Your task to perform on an android device: Open Reddit.com Image 0: 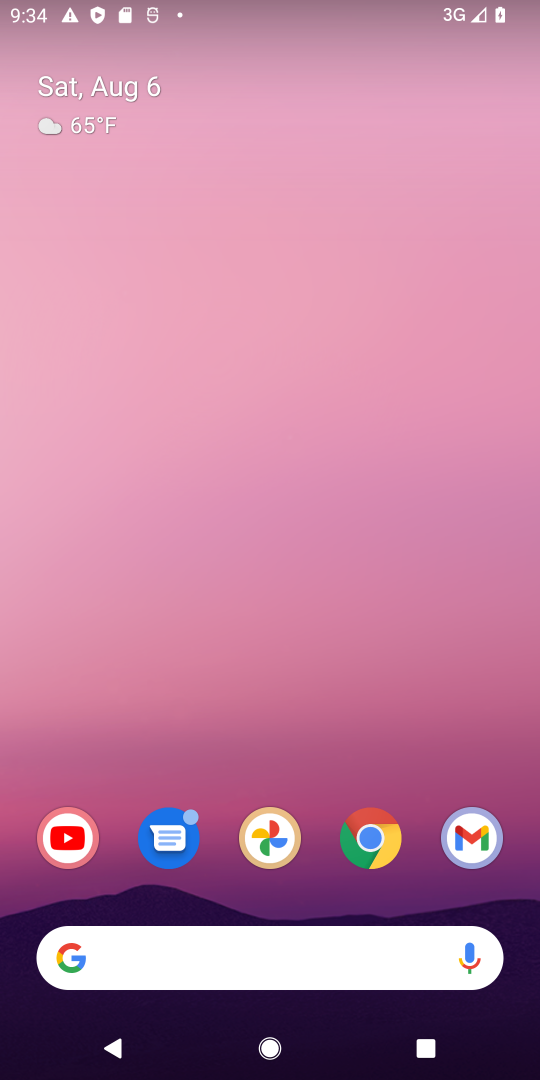
Step 0: drag from (372, 671) to (53, 485)
Your task to perform on an android device: Open Reddit.com Image 1: 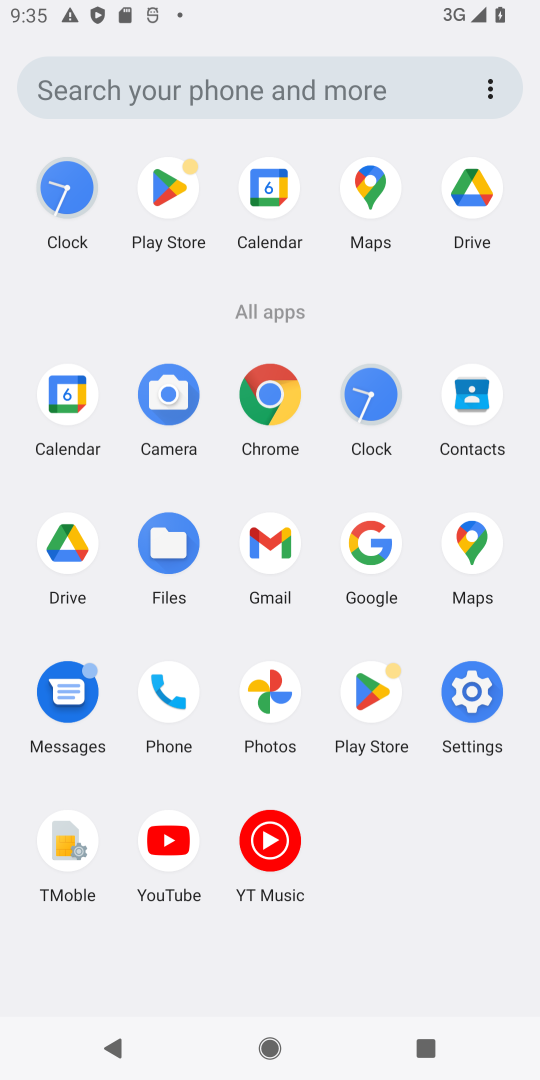
Step 1: click (258, 419)
Your task to perform on an android device: Open Reddit.com Image 2: 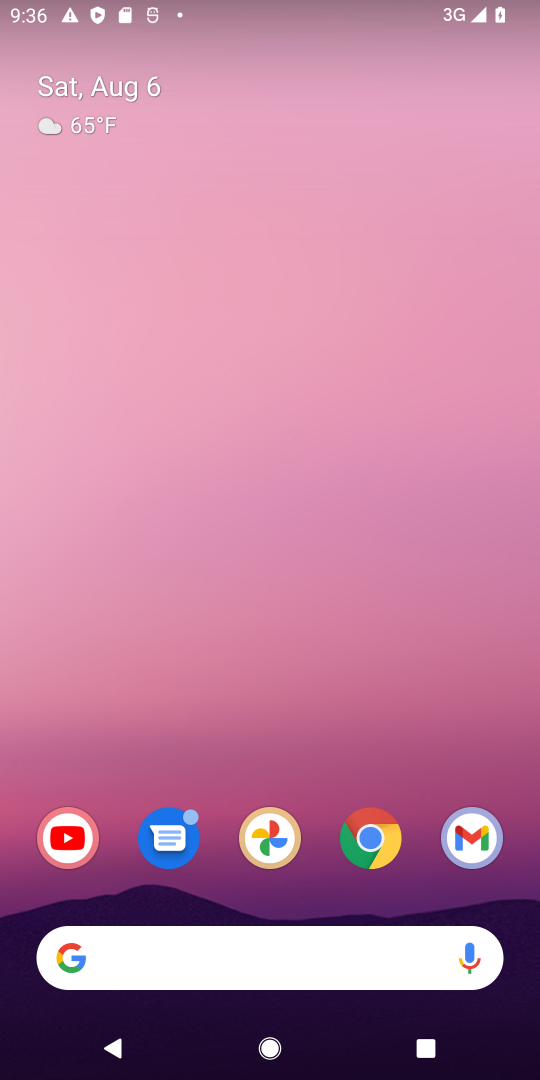
Step 2: drag from (183, 805) to (301, 119)
Your task to perform on an android device: Open Reddit.com Image 3: 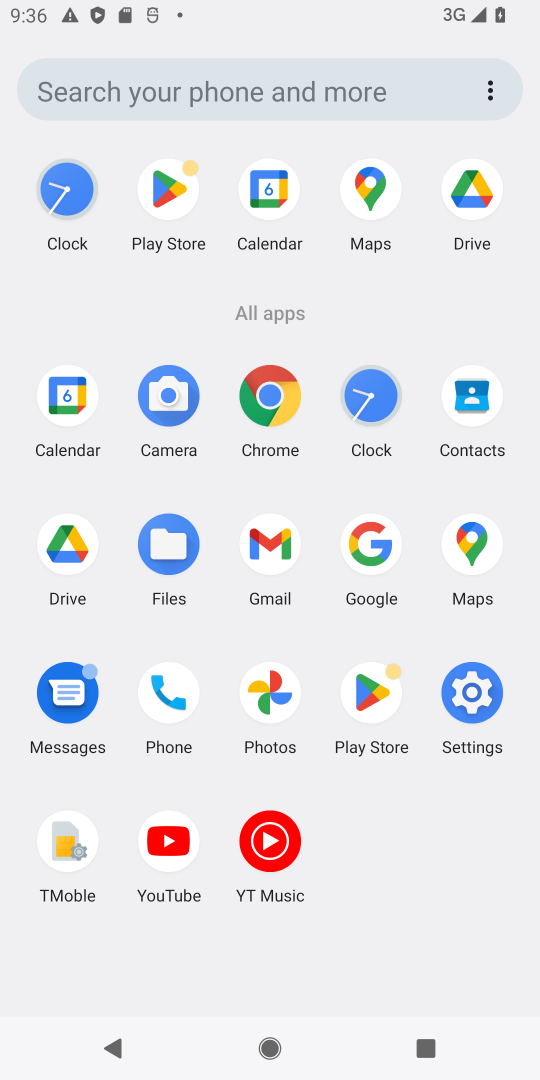
Step 3: click (234, 396)
Your task to perform on an android device: Open Reddit.com Image 4: 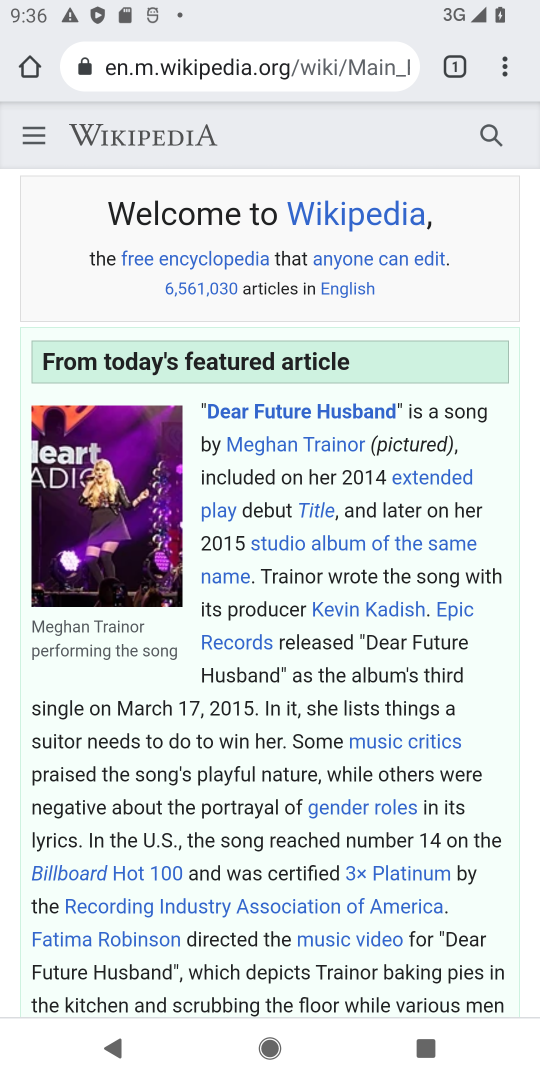
Step 4: click (199, 57)
Your task to perform on an android device: Open Reddit.com Image 5: 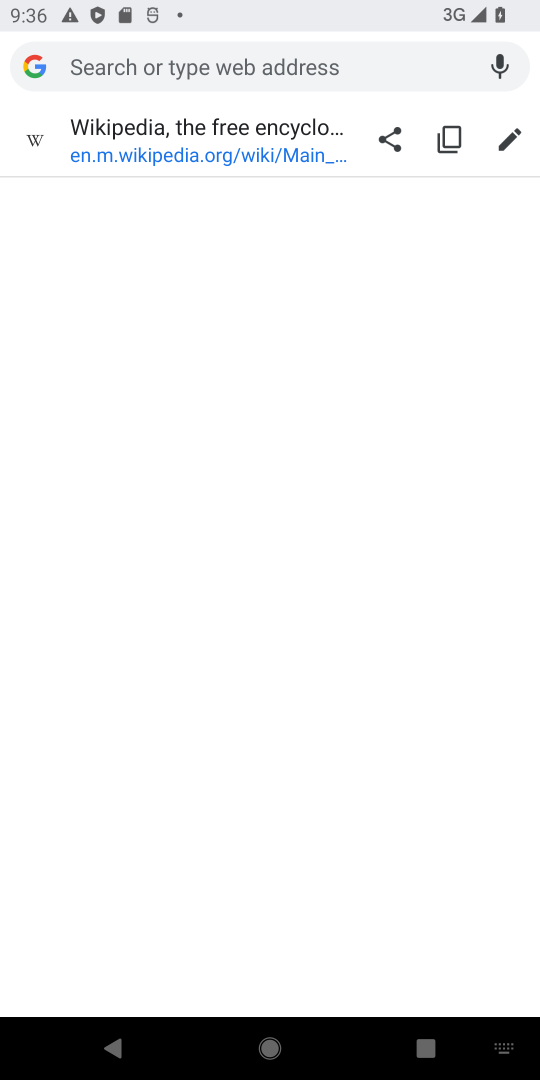
Step 5: type " Reddit.com"
Your task to perform on an android device: Open Reddit.com Image 6: 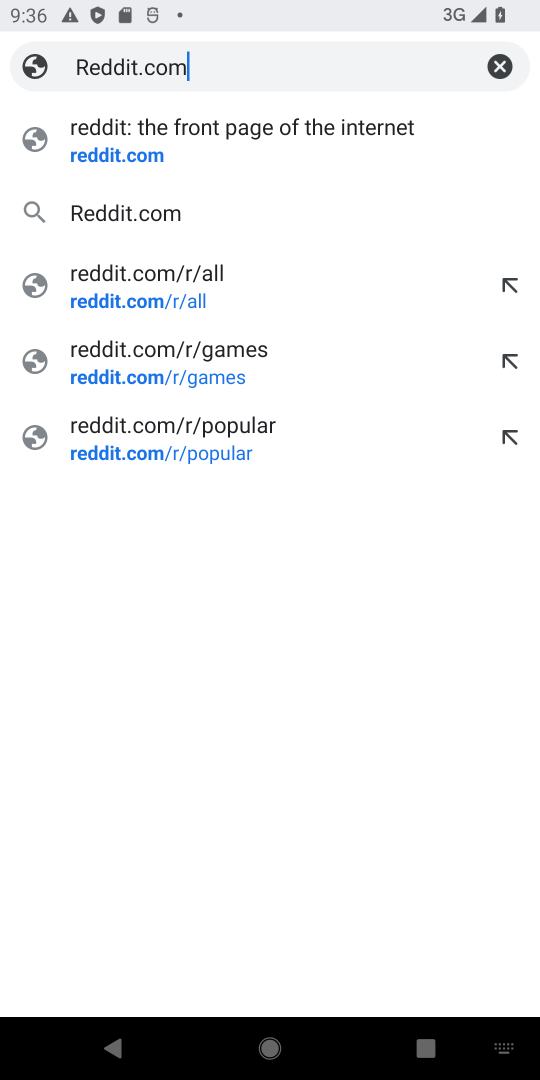
Step 6: task complete